Your task to perform on an android device: toggle improve location accuracy Image 0: 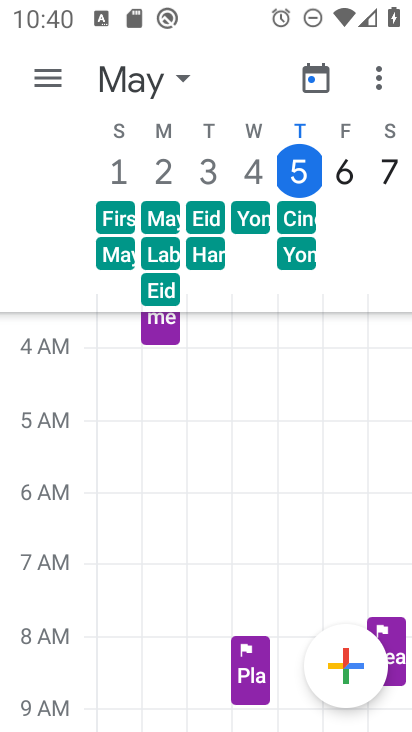
Step 0: press home button
Your task to perform on an android device: toggle improve location accuracy Image 1: 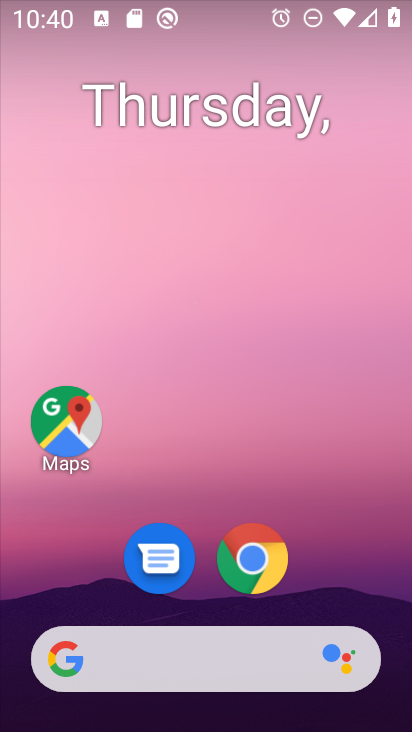
Step 1: drag from (355, 583) to (333, 48)
Your task to perform on an android device: toggle improve location accuracy Image 2: 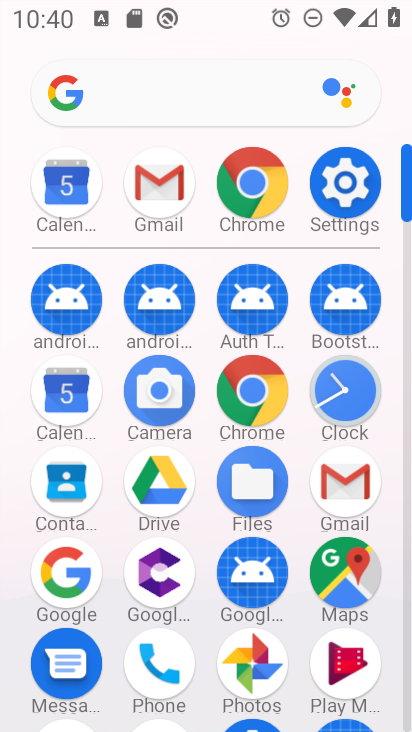
Step 2: click (405, 689)
Your task to perform on an android device: toggle improve location accuracy Image 3: 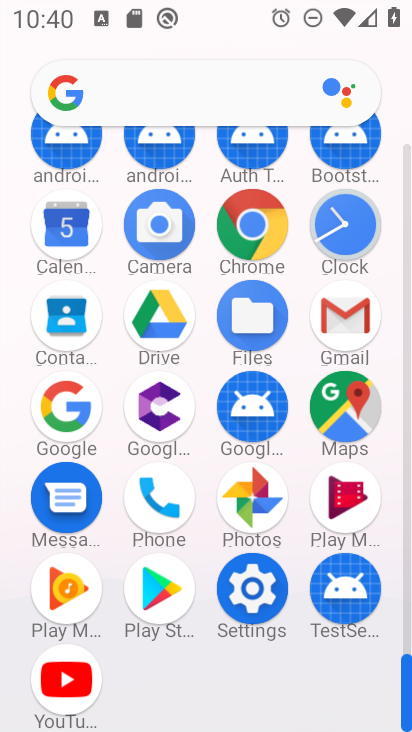
Step 3: click (256, 584)
Your task to perform on an android device: toggle improve location accuracy Image 4: 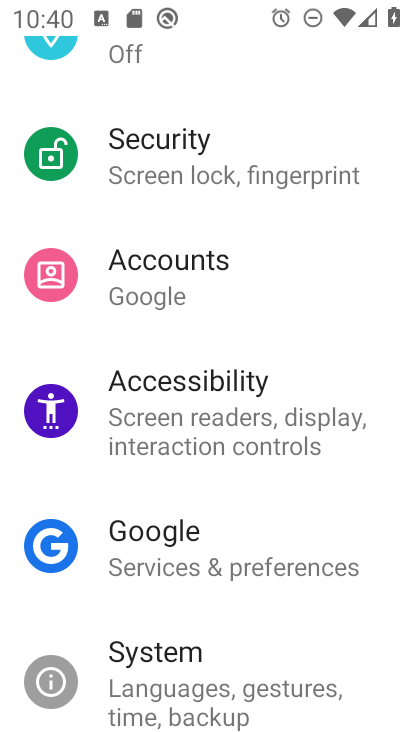
Step 4: drag from (209, 178) to (227, 455)
Your task to perform on an android device: toggle improve location accuracy Image 5: 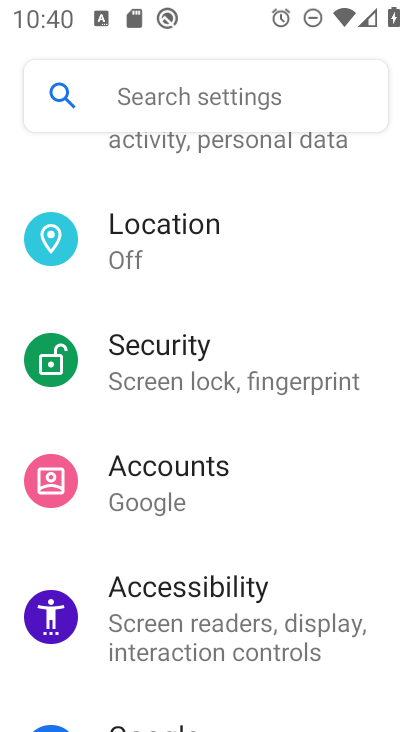
Step 5: click (156, 234)
Your task to perform on an android device: toggle improve location accuracy Image 6: 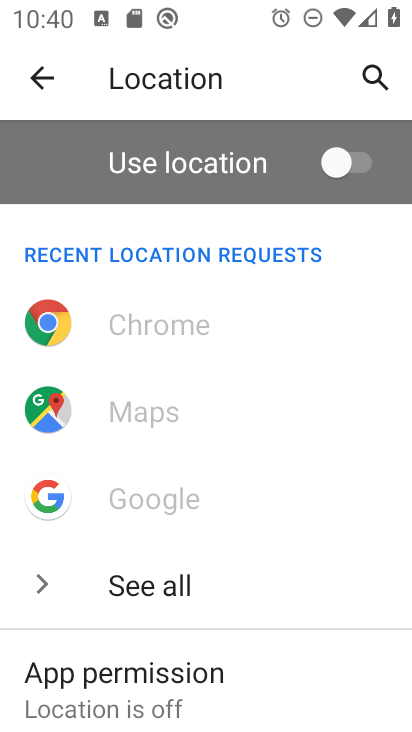
Step 6: drag from (243, 612) to (223, 238)
Your task to perform on an android device: toggle improve location accuracy Image 7: 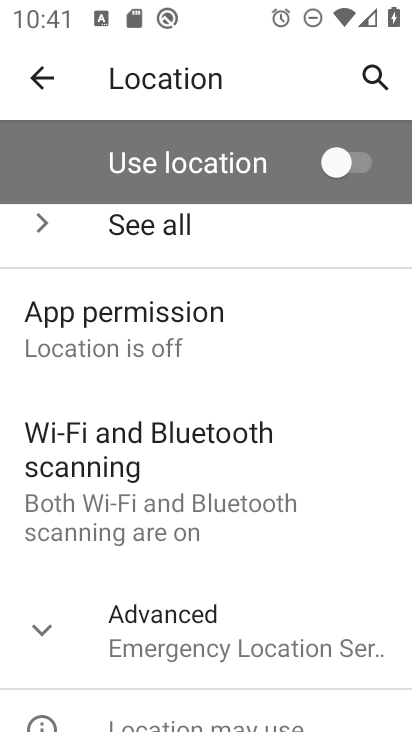
Step 7: click (44, 622)
Your task to perform on an android device: toggle improve location accuracy Image 8: 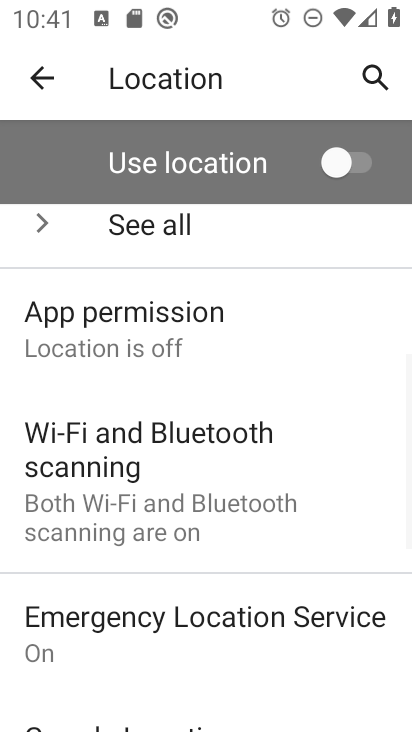
Step 8: drag from (277, 650) to (250, 276)
Your task to perform on an android device: toggle improve location accuracy Image 9: 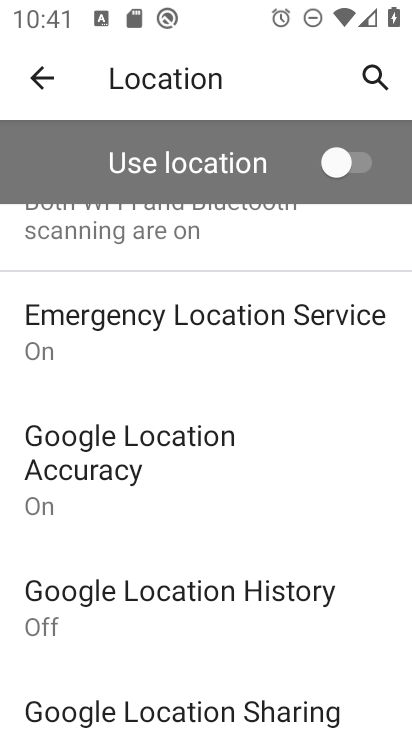
Step 9: click (25, 460)
Your task to perform on an android device: toggle improve location accuracy Image 10: 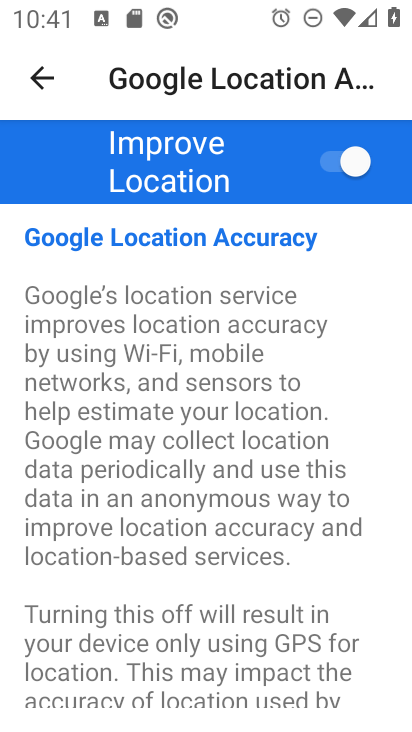
Step 10: click (325, 160)
Your task to perform on an android device: toggle improve location accuracy Image 11: 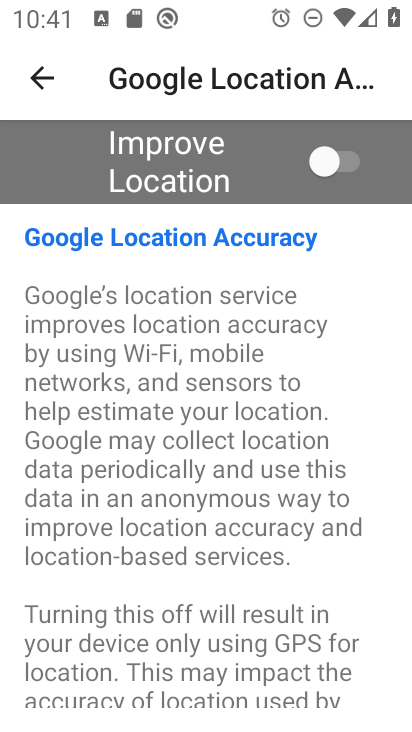
Step 11: task complete